Your task to perform on an android device: stop showing notifications on the lock screen Image 0: 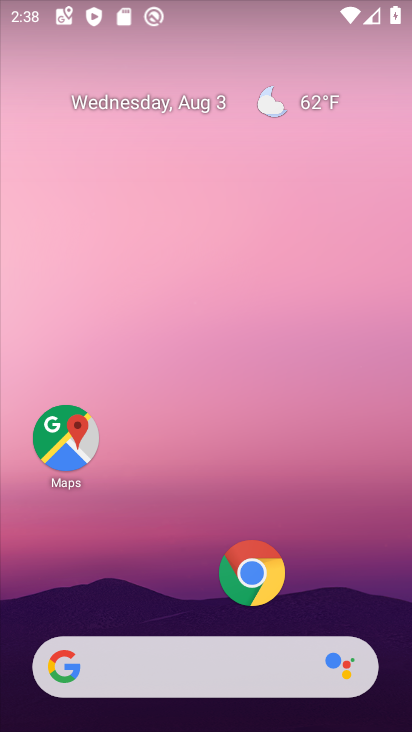
Step 0: drag from (173, 588) to (193, 37)
Your task to perform on an android device: stop showing notifications on the lock screen Image 1: 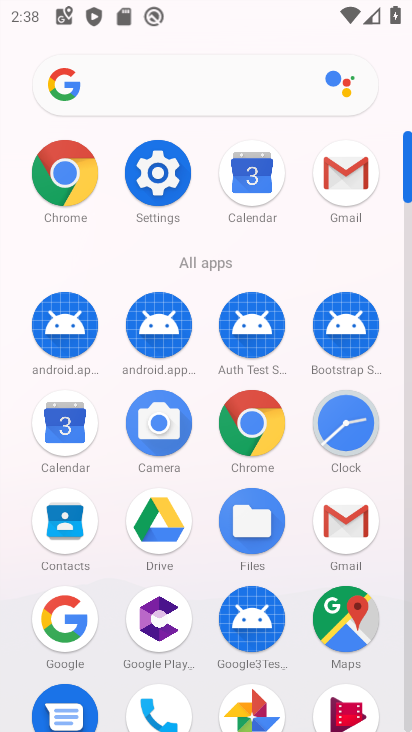
Step 1: click (162, 184)
Your task to perform on an android device: stop showing notifications on the lock screen Image 2: 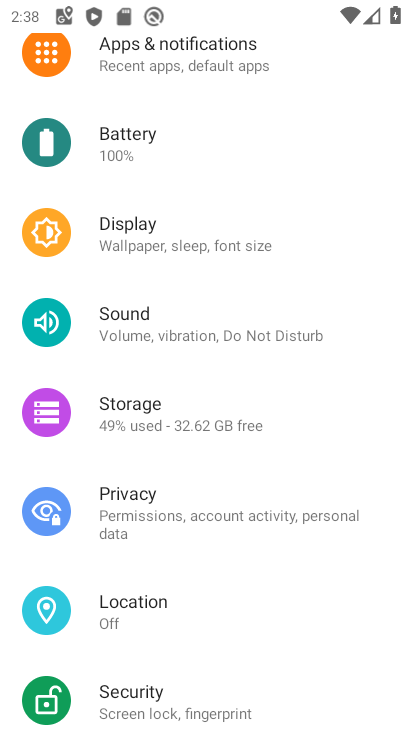
Step 2: click (191, 60)
Your task to perform on an android device: stop showing notifications on the lock screen Image 3: 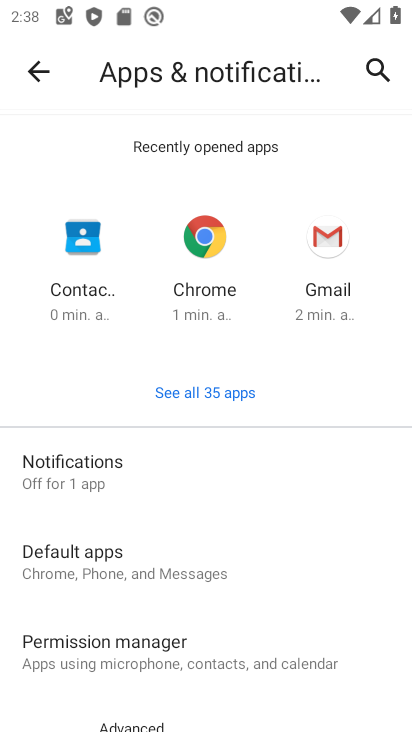
Step 3: click (111, 486)
Your task to perform on an android device: stop showing notifications on the lock screen Image 4: 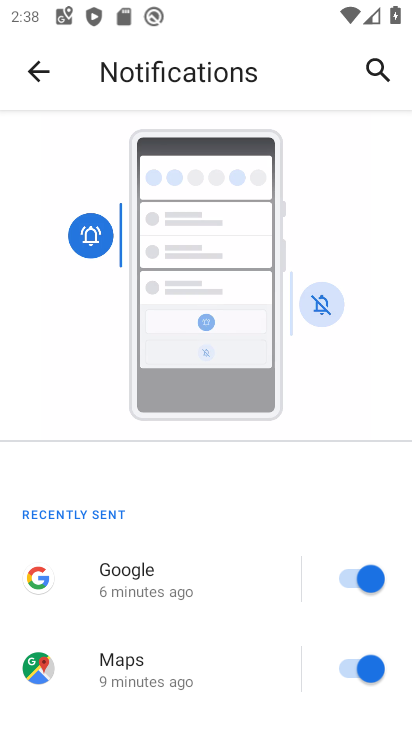
Step 4: drag from (131, 566) to (124, 288)
Your task to perform on an android device: stop showing notifications on the lock screen Image 5: 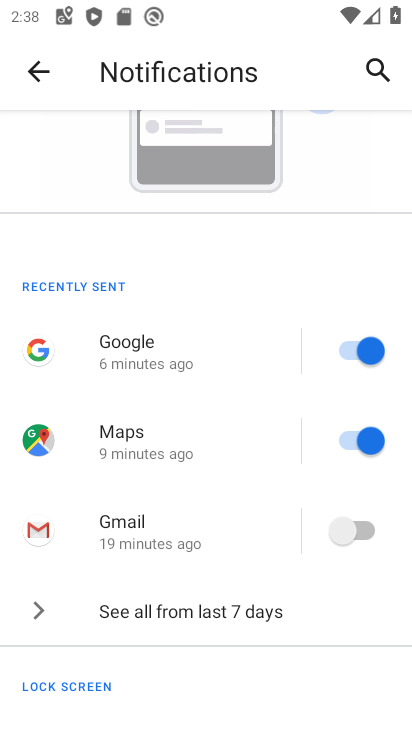
Step 5: drag from (135, 679) to (150, 384)
Your task to perform on an android device: stop showing notifications on the lock screen Image 6: 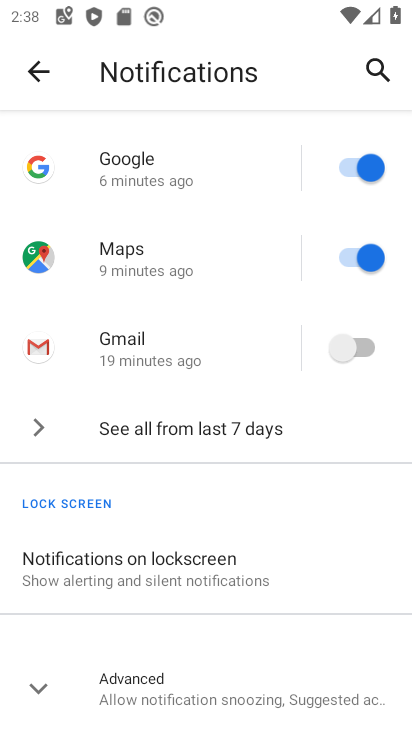
Step 6: click (95, 572)
Your task to perform on an android device: stop showing notifications on the lock screen Image 7: 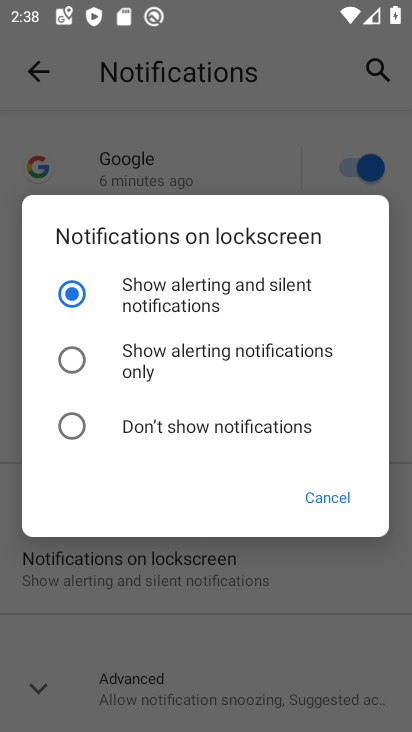
Step 7: click (81, 418)
Your task to perform on an android device: stop showing notifications on the lock screen Image 8: 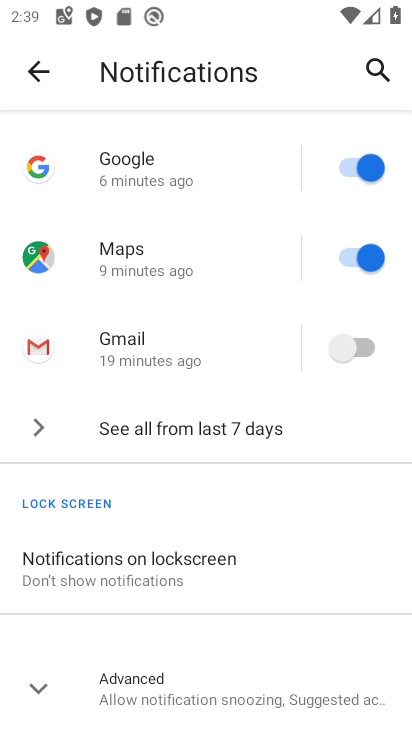
Step 8: task complete